Your task to perform on an android device: Turn on the flashlight Image 0: 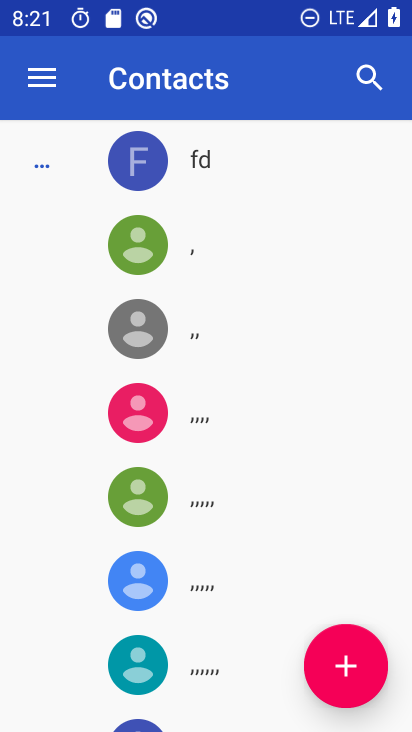
Step 0: press home button
Your task to perform on an android device: Turn on the flashlight Image 1: 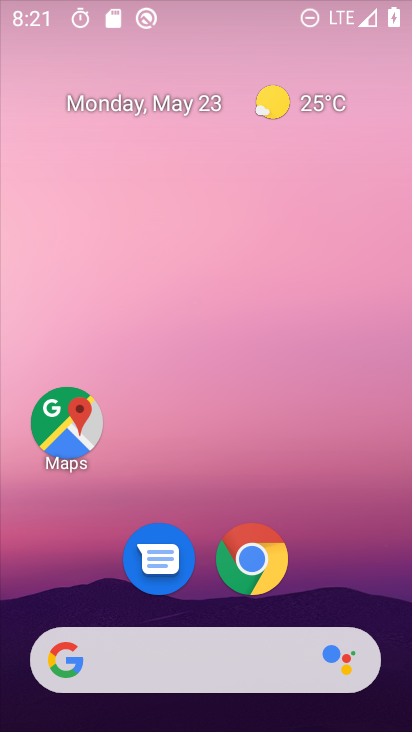
Step 1: drag from (380, 657) to (286, 68)
Your task to perform on an android device: Turn on the flashlight Image 2: 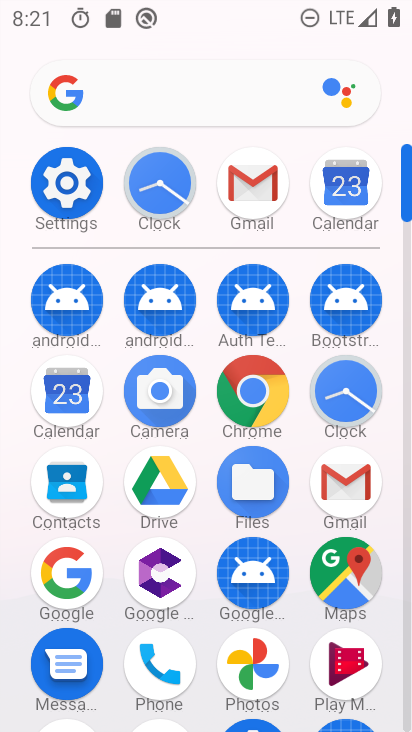
Step 2: click (90, 182)
Your task to perform on an android device: Turn on the flashlight Image 3: 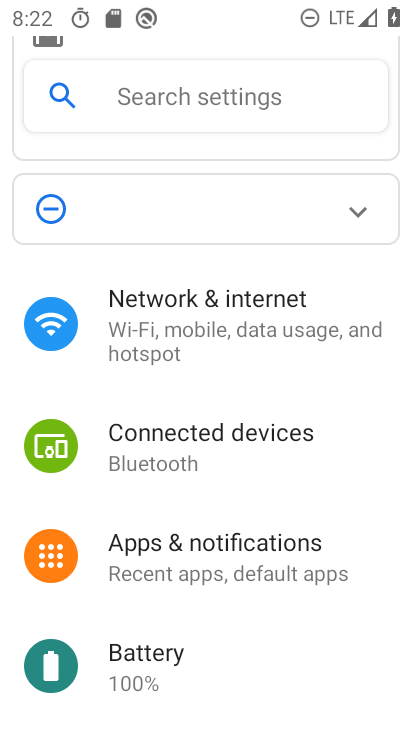
Step 3: task complete